Your task to perform on an android device: open app "Reddit" Image 0: 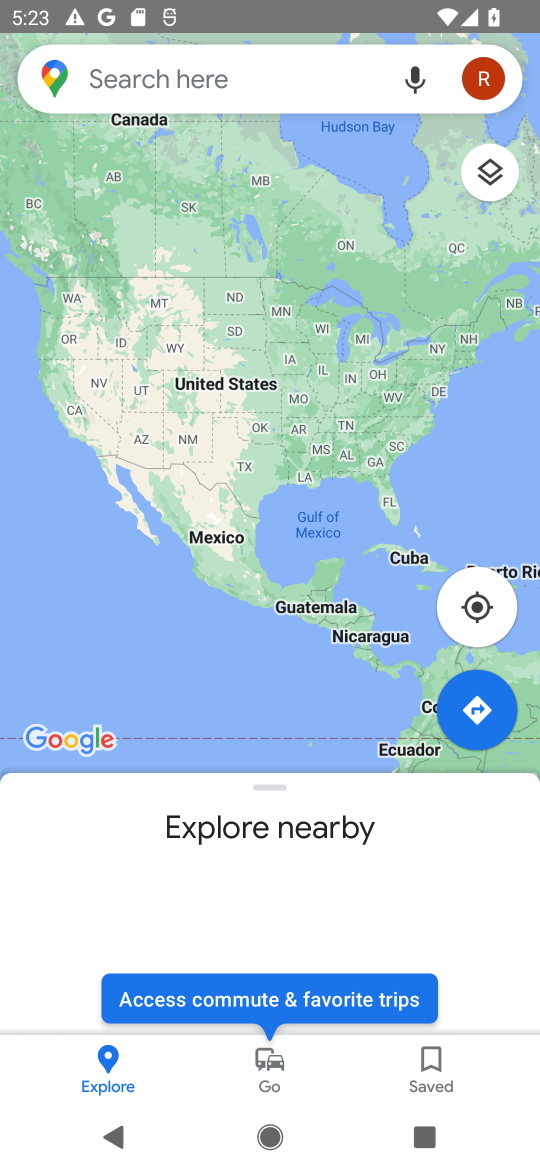
Step 0: press home button
Your task to perform on an android device: open app "Reddit" Image 1: 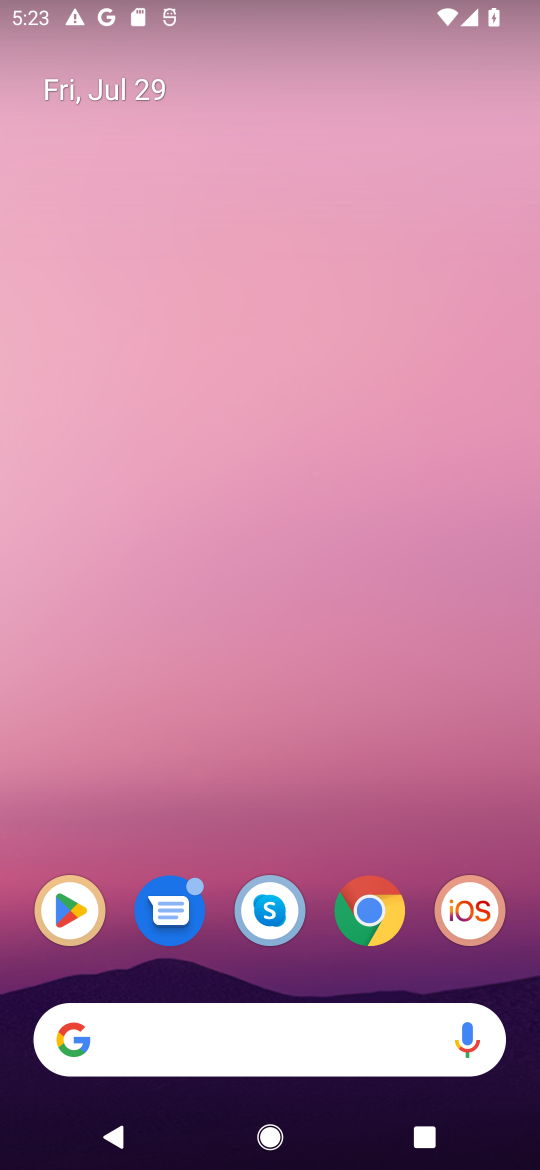
Step 1: drag from (325, 999) to (355, 238)
Your task to perform on an android device: open app "Reddit" Image 2: 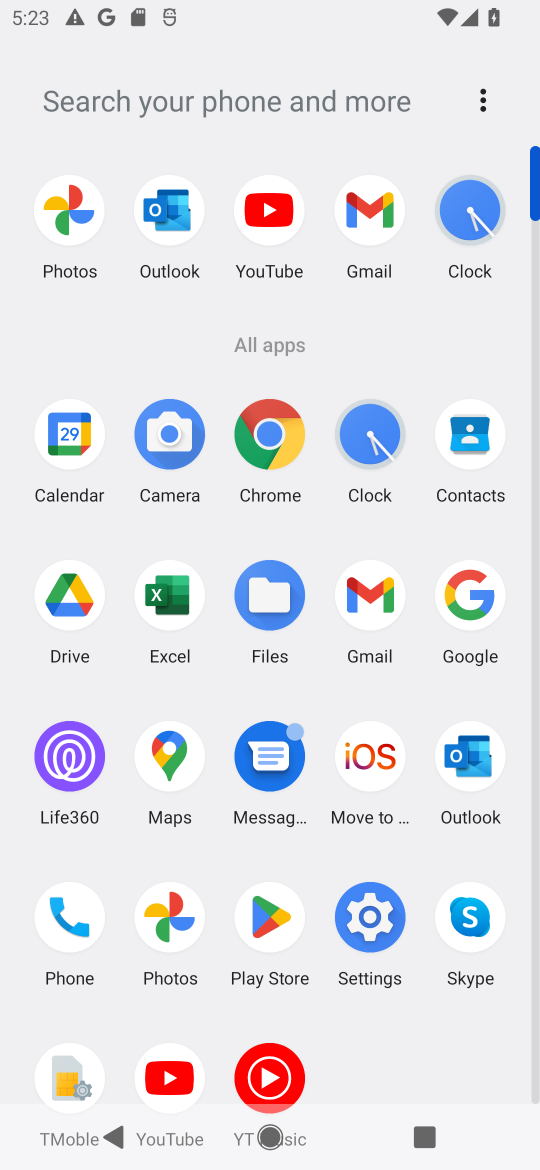
Step 2: click (279, 915)
Your task to perform on an android device: open app "Reddit" Image 3: 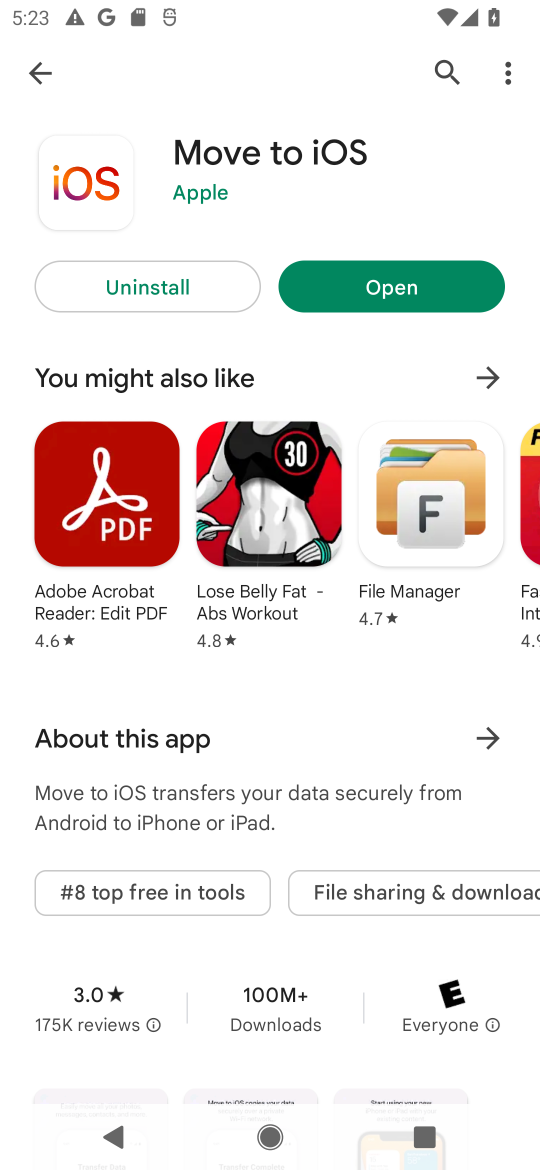
Step 3: click (29, 79)
Your task to perform on an android device: open app "Reddit" Image 4: 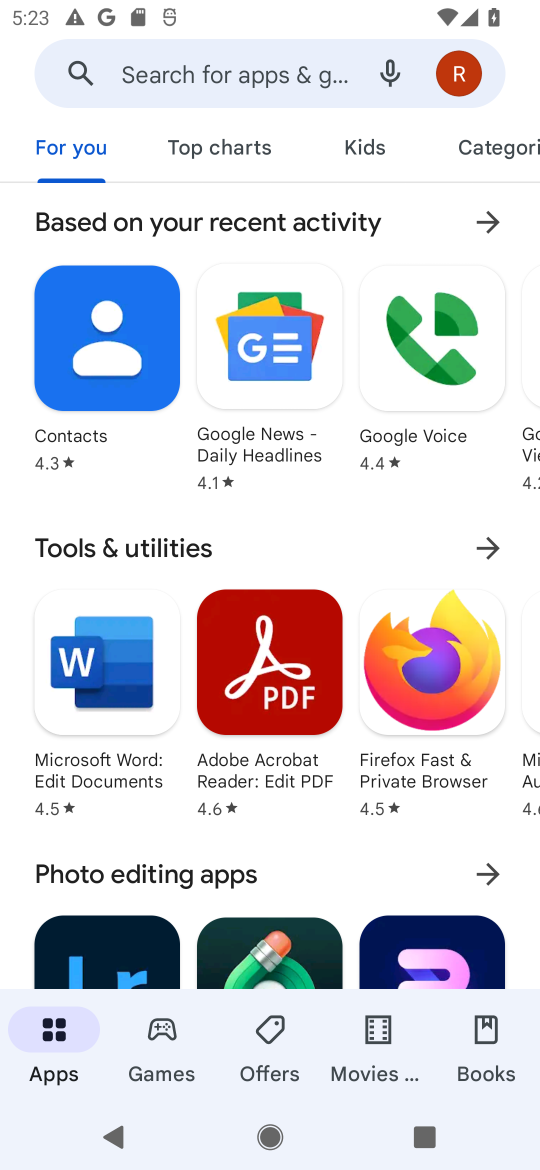
Step 4: type "Reddit"
Your task to perform on an android device: open app "Reddit" Image 5: 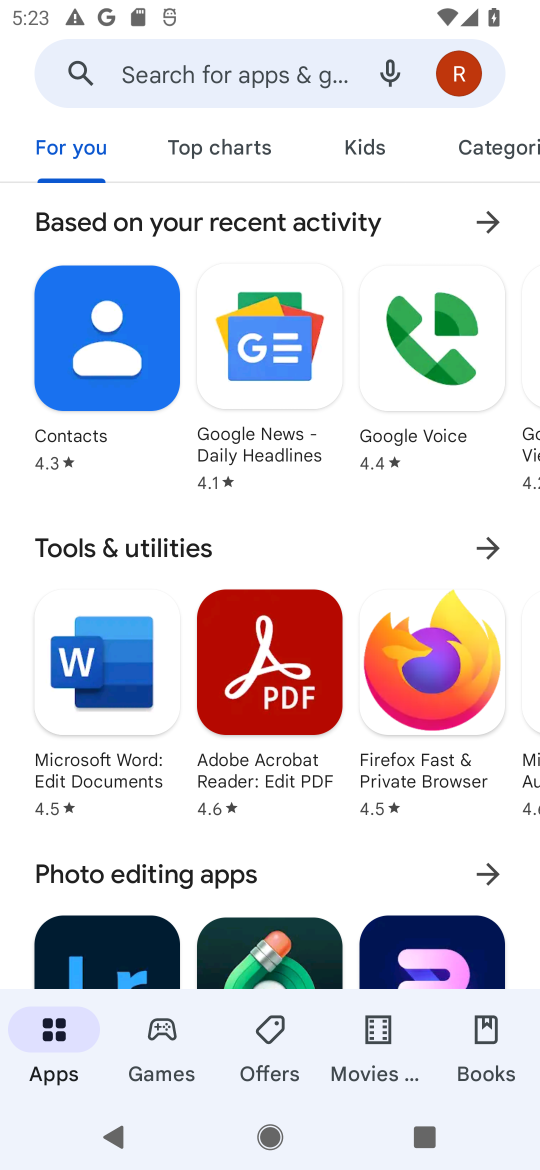
Step 5: click (210, 66)
Your task to perform on an android device: open app "Reddit" Image 6: 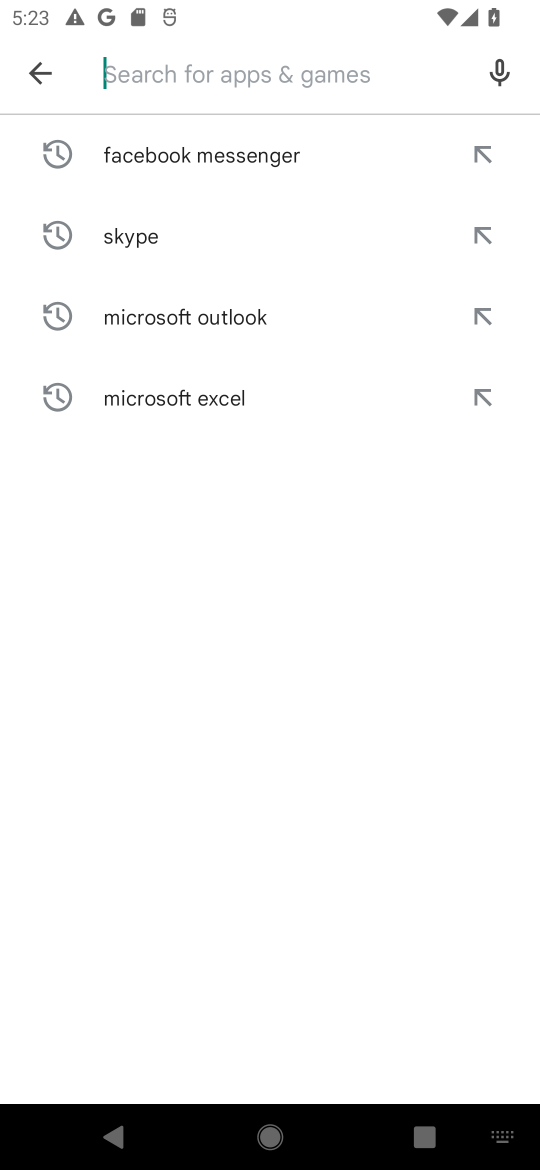
Step 6: type "Reddit"
Your task to perform on an android device: open app "Reddit" Image 7: 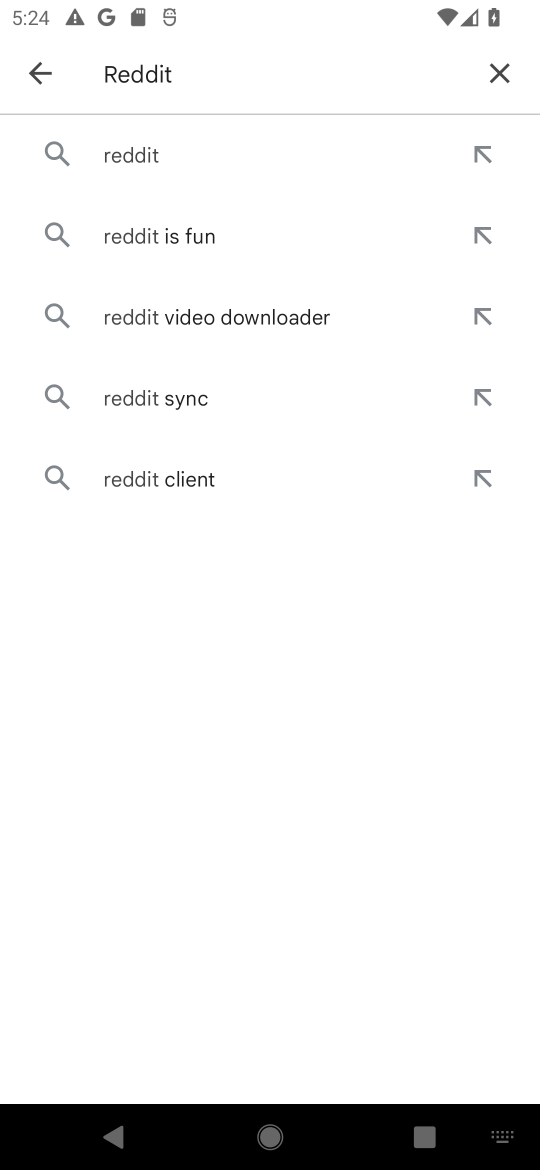
Step 7: click (142, 162)
Your task to perform on an android device: open app "Reddit" Image 8: 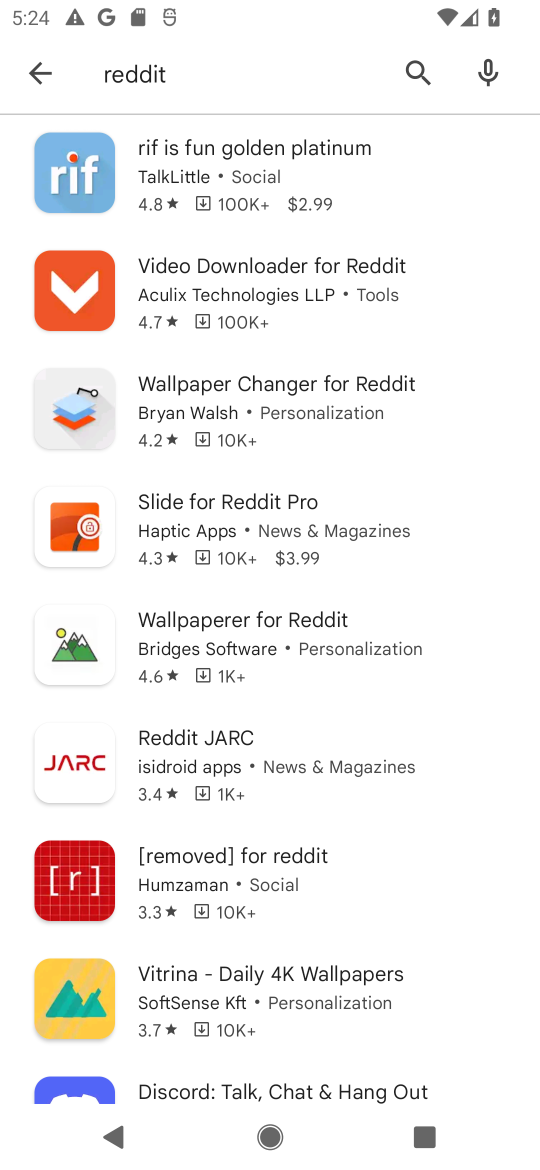
Step 8: click (183, 72)
Your task to perform on an android device: open app "Reddit" Image 9: 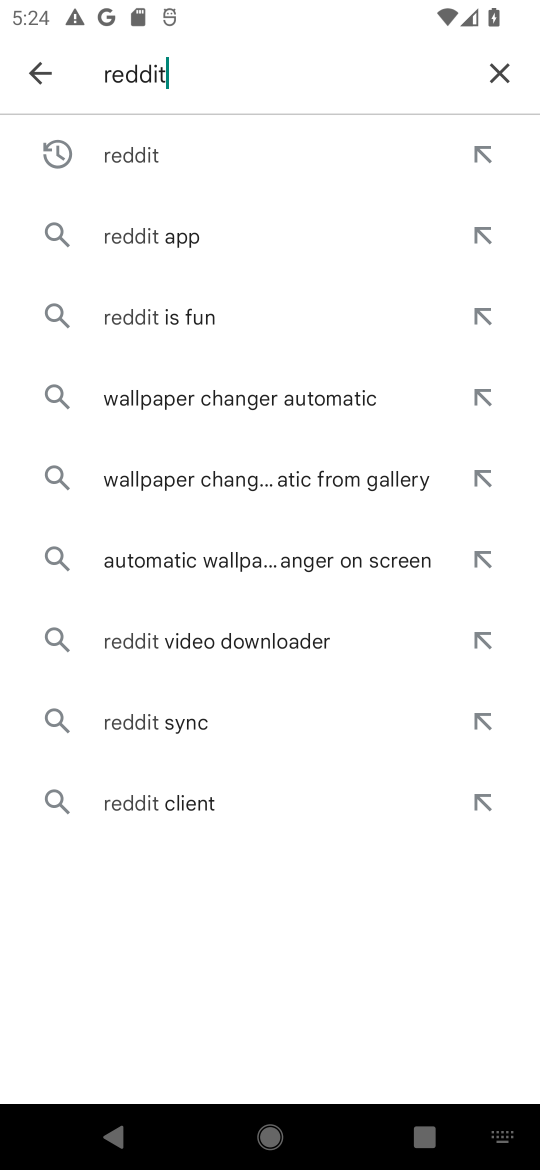
Step 9: click (134, 165)
Your task to perform on an android device: open app "Reddit" Image 10: 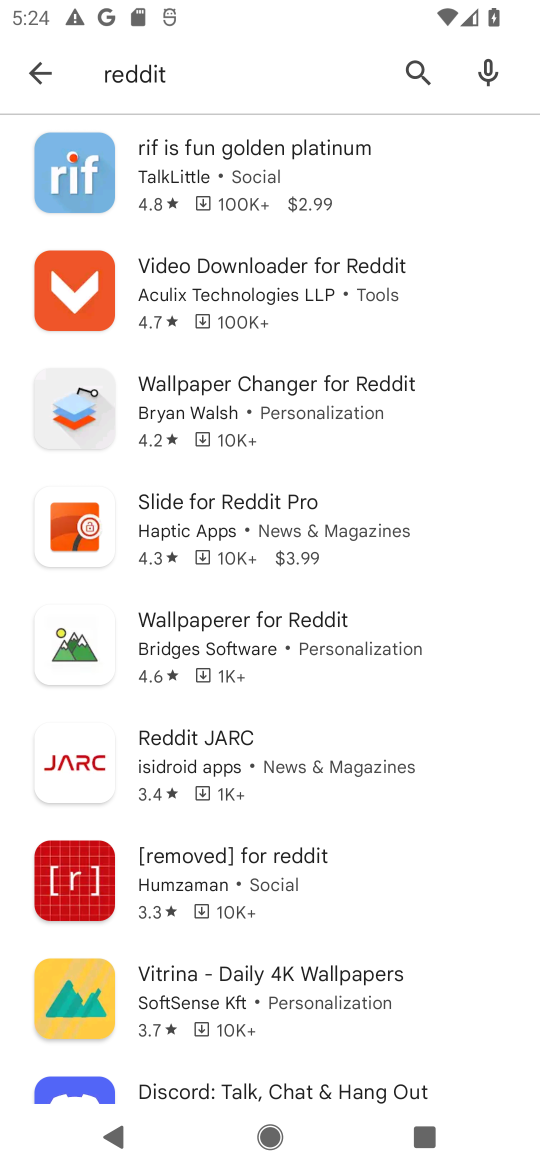
Step 10: task complete